Your task to perform on an android device: delete the emails in spam in the gmail app Image 0: 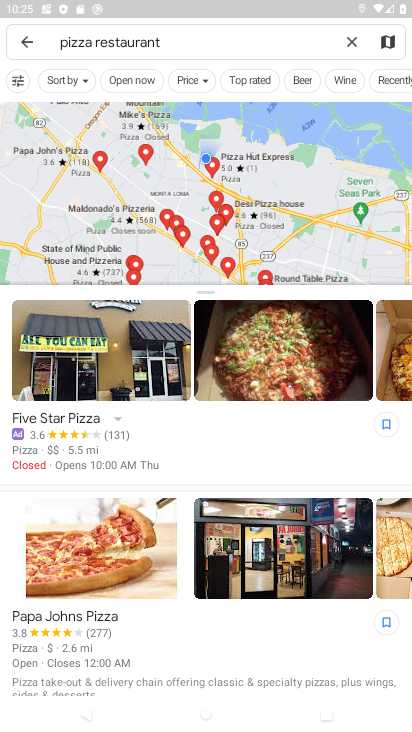
Step 0: press home button
Your task to perform on an android device: delete the emails in spam in the gmail app Image 1: 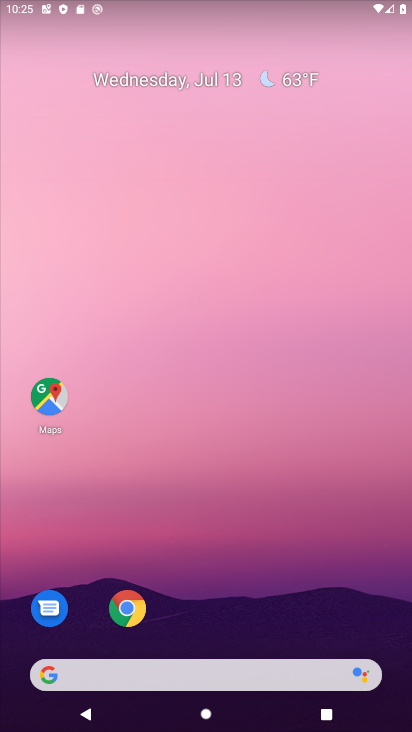
Step 1: drag from (281, 612) to (402, 659)
Your task to perform on an android device: delete the emails in spam in the gmail app Image 2: 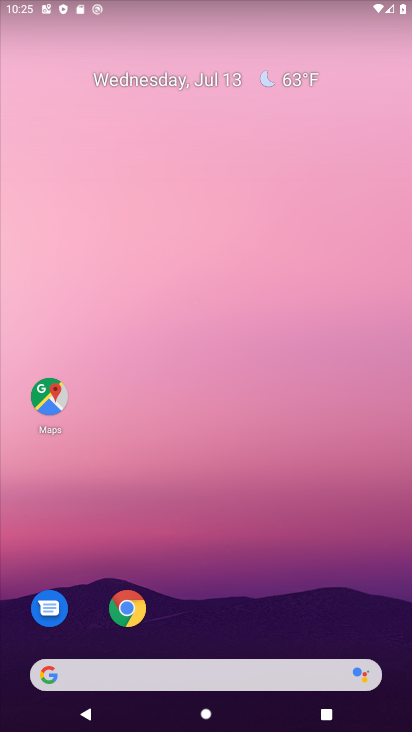
Step 2: drag from (271, 633) to (411, 208)
Your task to perform on an android device: delete the emails in spam in the gmail app Image 3: 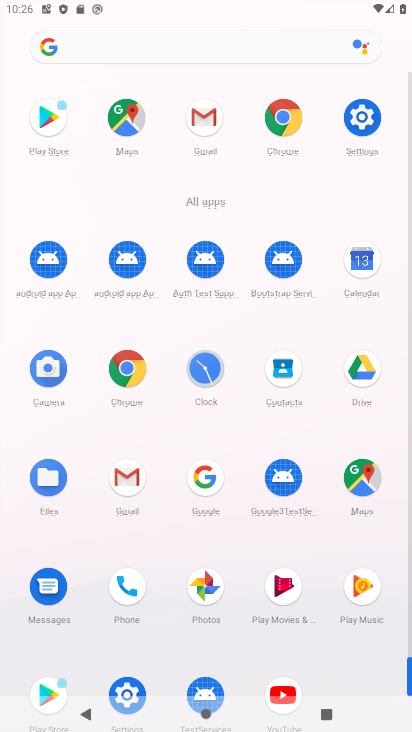
Step 3: click (134, 481)
Your task to perform on an android device: delete the emails in spam in the gmail app Image 4: 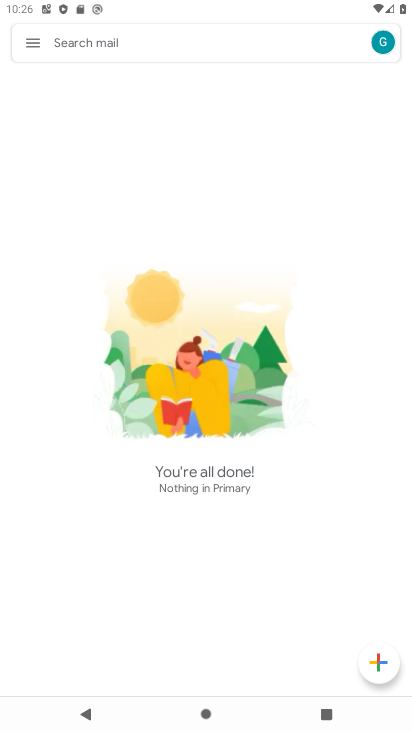
Step 4: click (37, 34)
Your task to perform on an android device: delete the emails in spam in the gmail app Image 5: 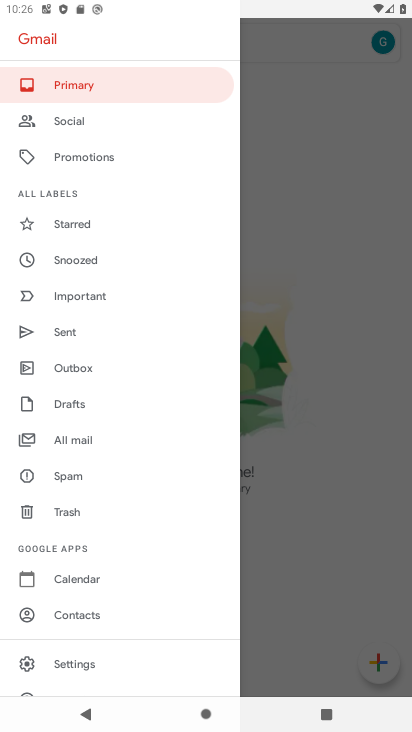
Step 5: click (75, 478)
Your task to perform on an android device: delete the emails in spam in the gmail app Image 6: 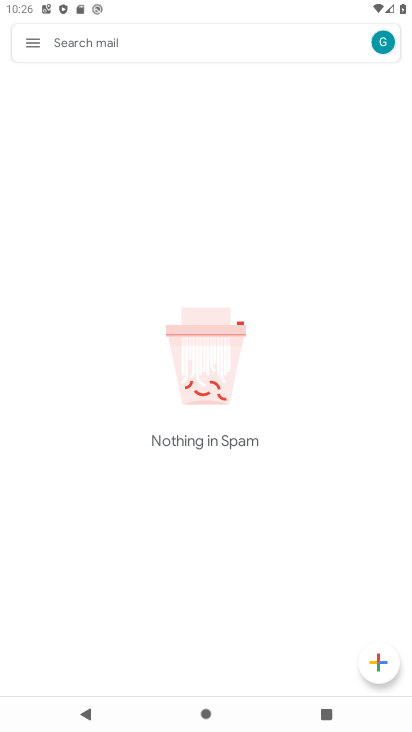
Step 6: task complete